Your task to perform on an android device: Search for pizza restaurants on Maps Image 0: 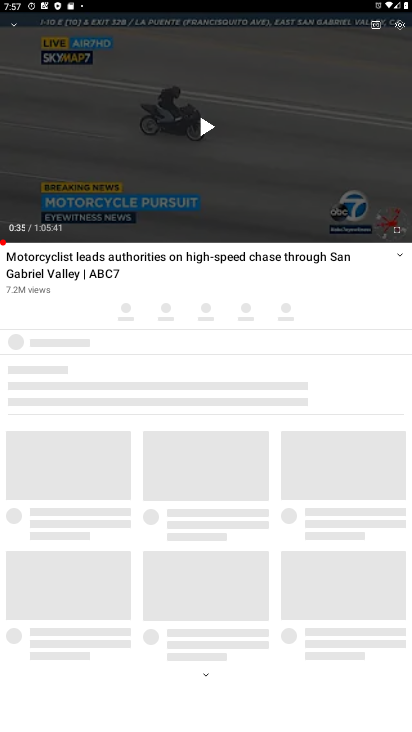
Step 0: press home button
Your task to perform on an android device: Search for pizza restaurants on Maps Image 1: 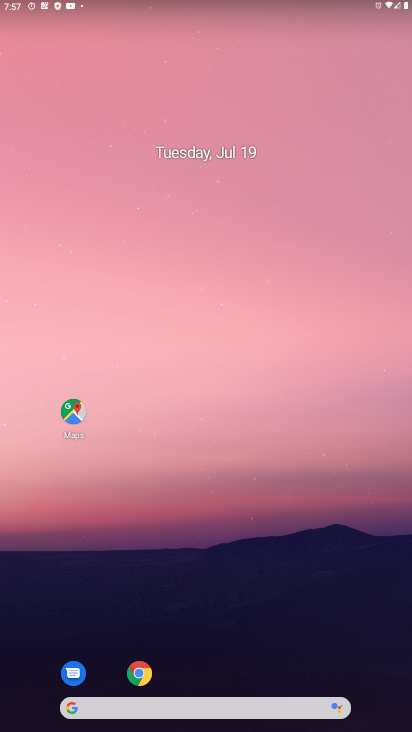
Step 1: drag from (246, 619) to (103, 34)
Your task to perform on an android device: Search for pizza restaurants on Maps Image 2: 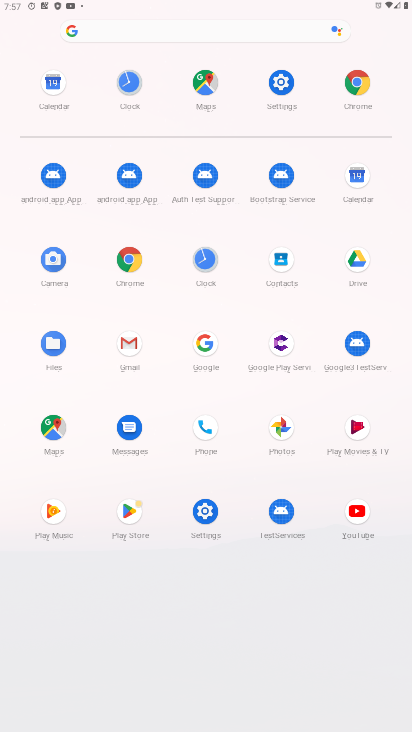
Step 2: click (57, 426)
Your task to perform on an android device: Search for pizza restaurants on Maps Image 3: 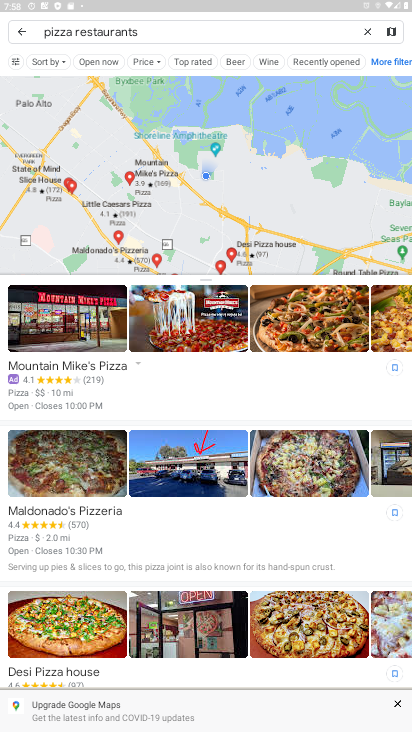
Step 3: task complete